Your task to perform on an android device: move an email to a new category in the gmail app Image 0: 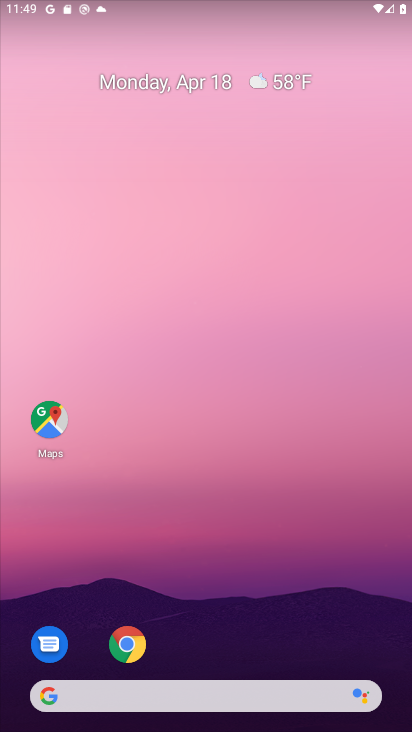
Step 0: drag from (284, 546) to (289, 148)
Your task to perform on an android device: move an email to a new category in the gmail app Image 1: 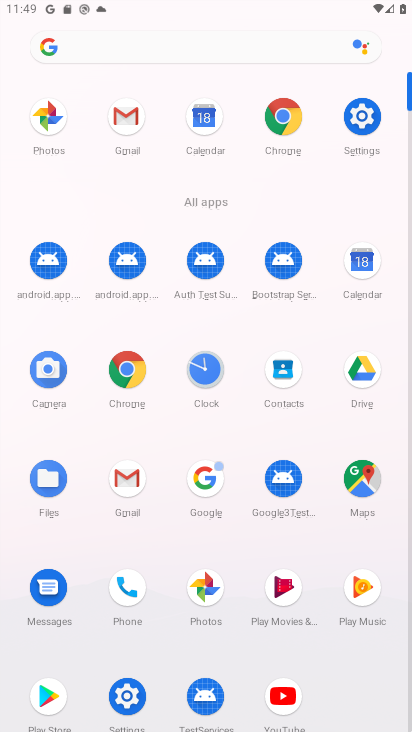
Step 1: click (134, 120)
Your task to perform on an android device: move an email to a new category in the gmail app Image 2: 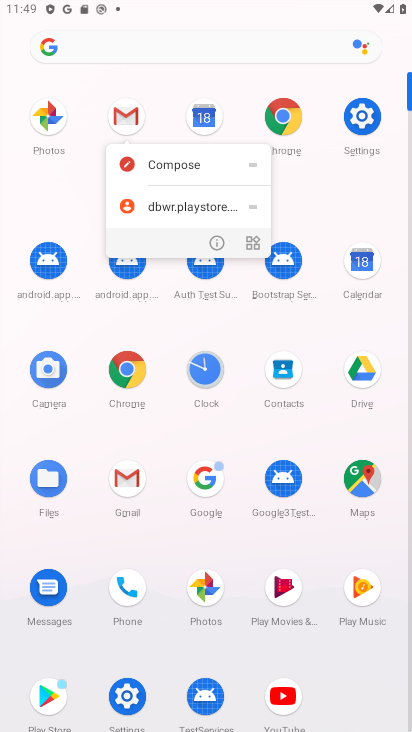
Step 2: click (130, 106)
Your task to perform on an android device: move an email to a new category in the gmail app Image 3: 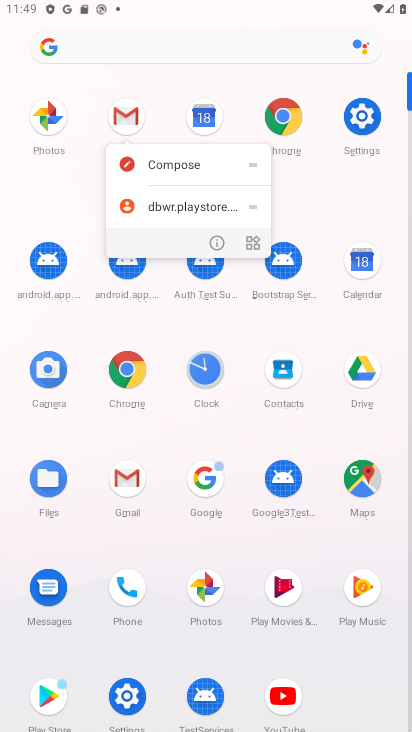
Step 3: click (127, 109)
Your task to perform on an android device: move an email to a new category in the gmail app Image 4: 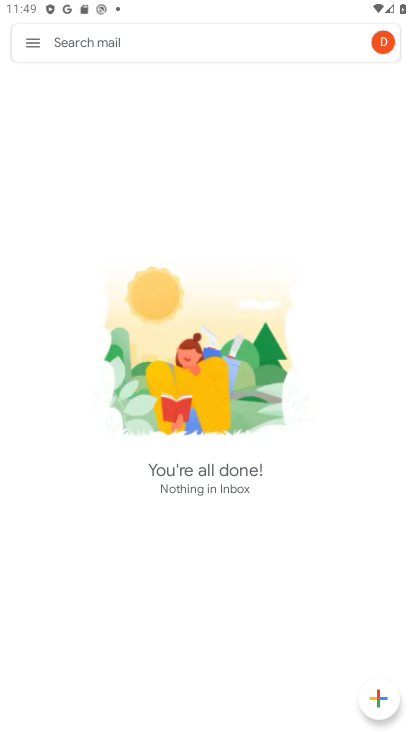
Step 4: click (30, 40)
Your task to perform on an android device: move an email to a new category in the gmail app Image 5: 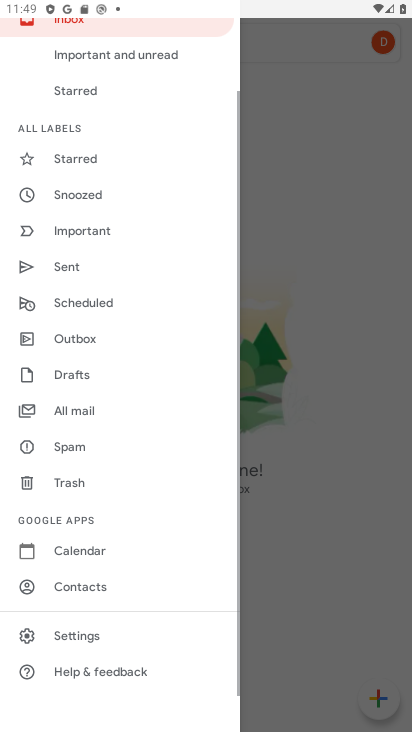
Step 5: task complete